Your task to perform on an android device: turn on translation in the chrome app Image 0: 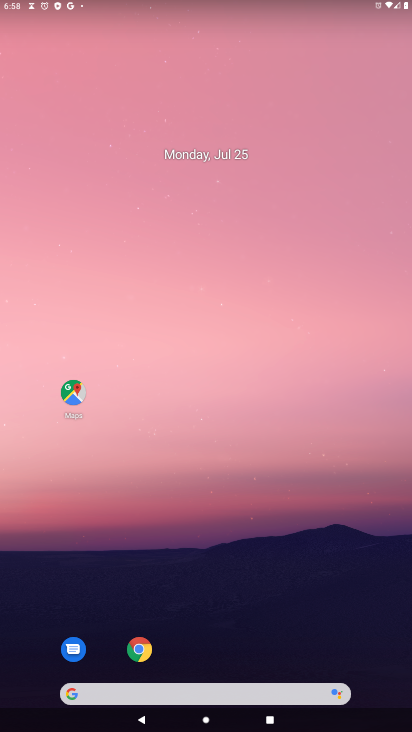
Step 0: drag from (271, 703) to (301, 164)
Your task to perform on an android device: turn on translation in the chrome app Image 1: 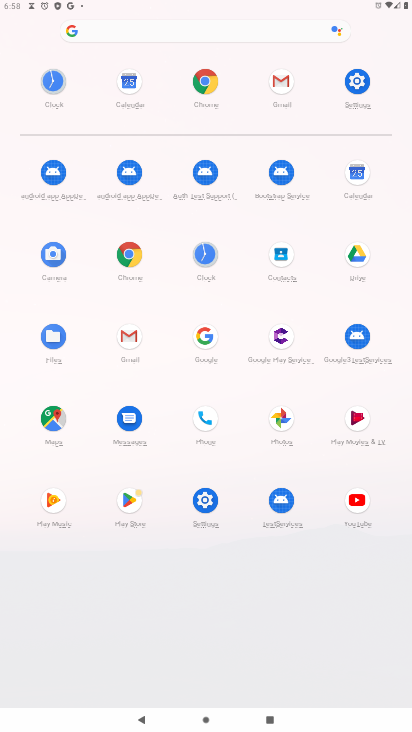
Step 1: click (130, 252)
Your task to perform on an android device: turn on translation in the chrome app Image 2: 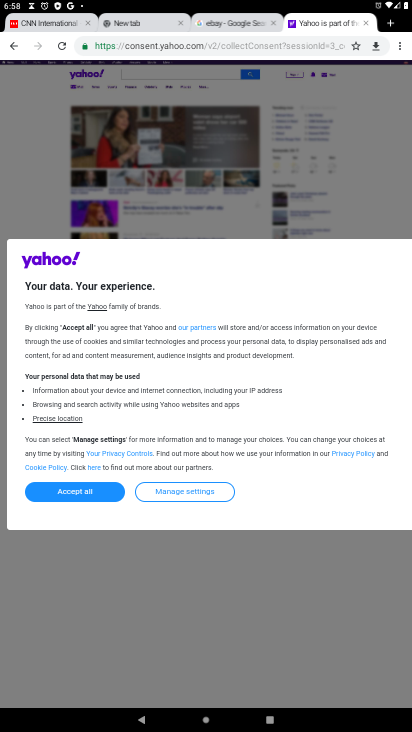
Step 2: drag from (399, 102) to (331, 251)
Your task to perform on an android device: turn on translation in the chrome app Image 3: 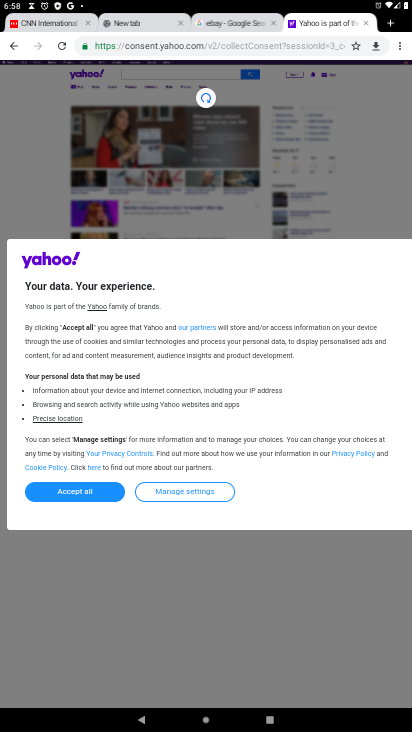
Step 3: drag from (341, 222) to (396, 106)
Your task to perform on an android device: turn on translation in the chrome app Image 4: 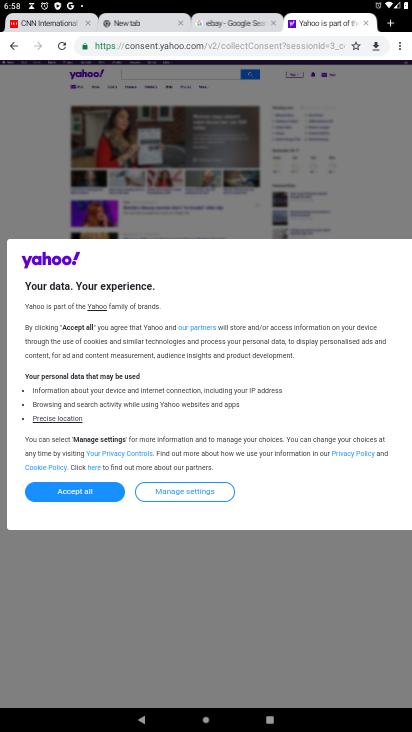
Step 4: drag from (396, 50) to (330, 300)
Your task to perform on an android device: turn on translation in the chrome app Image 5: 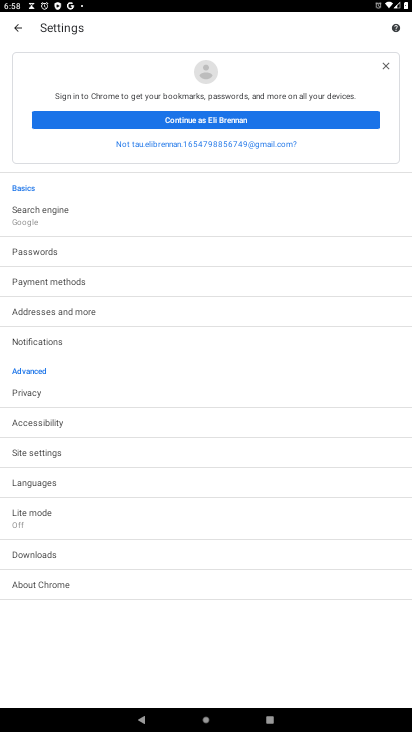
Step 5: click (38, 471)
Your task to perform on an android device: turn on translation in the chrome app Image 6: 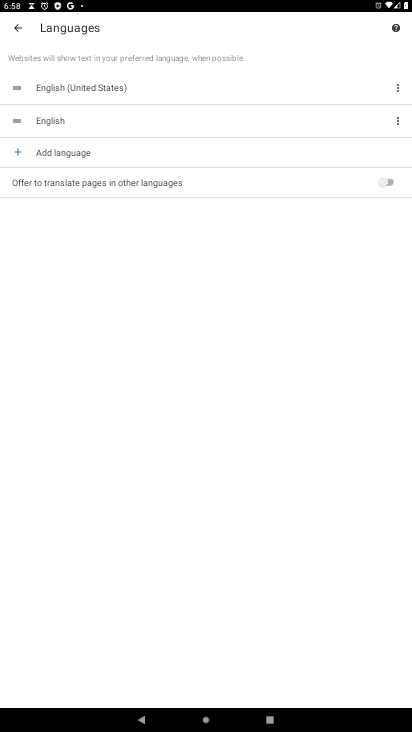
Step 6: click (385, 181)
Your task to perform on an android device: turn on translation in the chrome app Image 7: 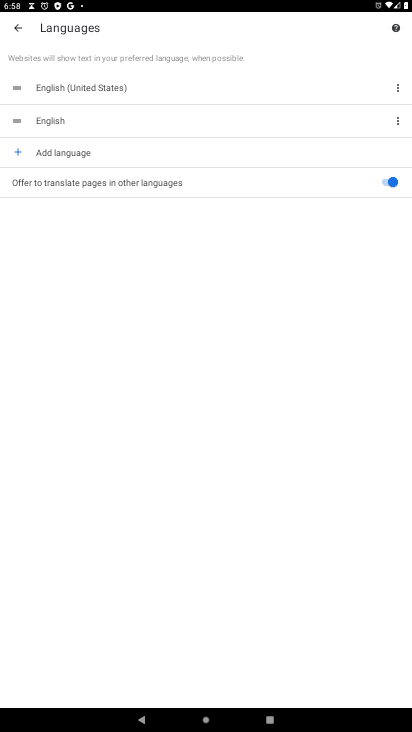
Step 7: task complete